Your task to perform on an android device: Open notification settings Image 0: 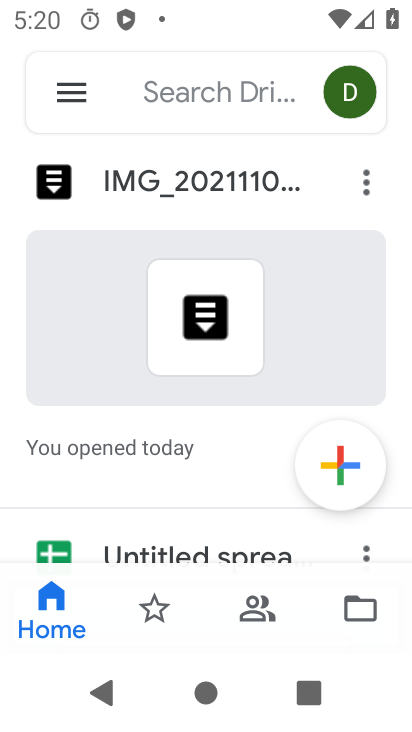
Step 0: press home button
Your task to perform on an android device: Open notification settings Image 1: 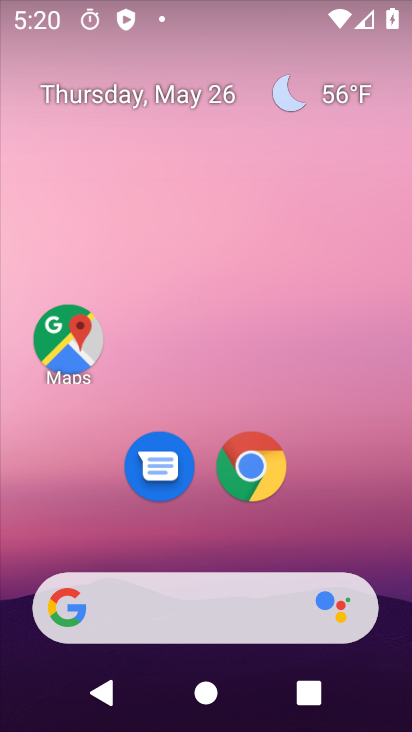
Step 1: drag from (278, 511) to (329, 67)
Your task to perform on an android device: Open notification settings Image 2: 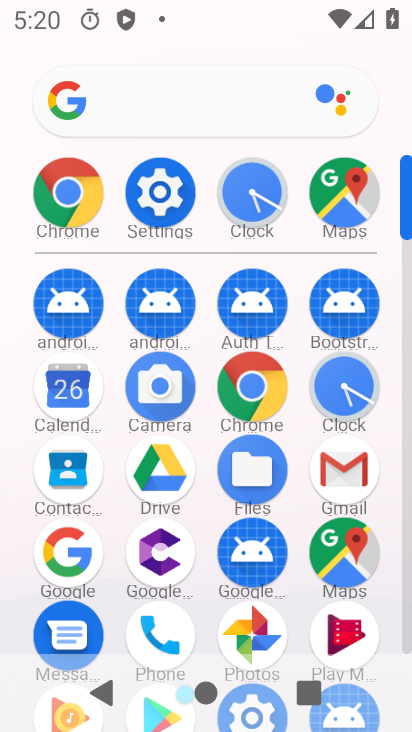
Step 2: click (159, 193)
Your task to perform on an android device: Open notification settings Image 3: 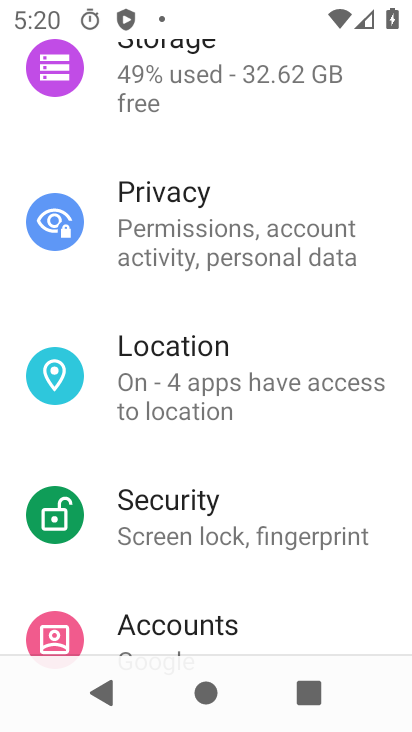
Step 3: drag from (337, 152) to (313, 532)
Your task to perform on an android device: Open notification settings Image 4: 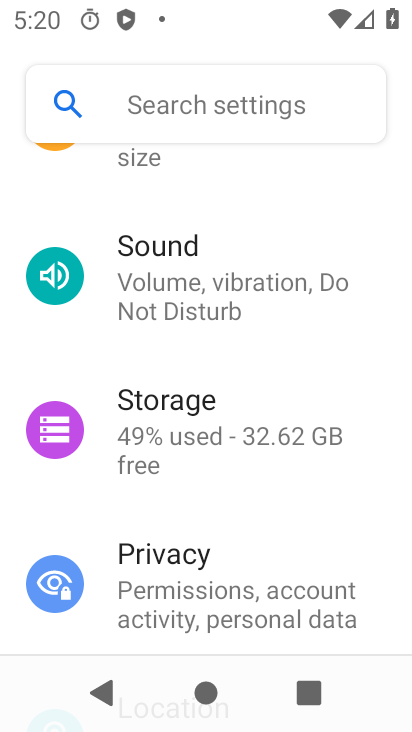
Step 4: drag from (350, 208) to (323, 546)
Your task to perform on an android device: Open notification settings Image 5: 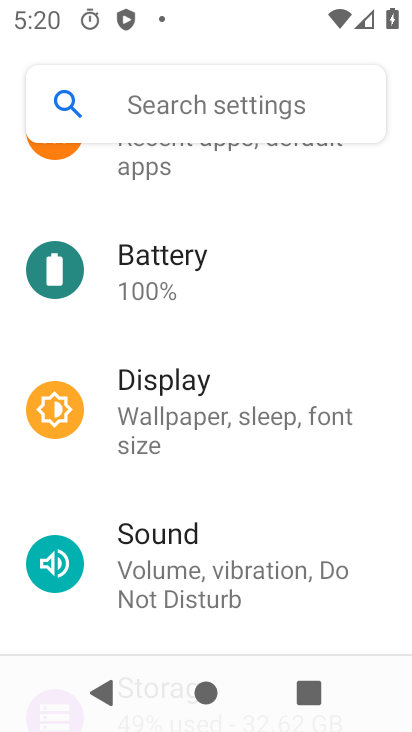
Step 5: drag from (332, 301) to (316, 529)
Your task to perform on an android device: Open notification settings Image 6: 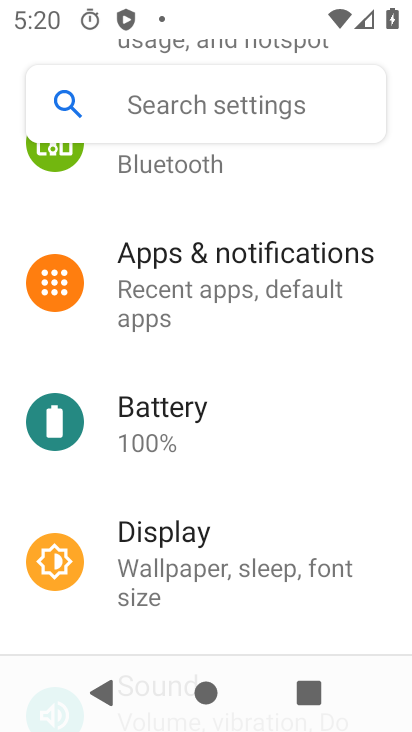
Step 6: click (252, 262)
Your task to perform on an android device: Open notification settings Image 7: 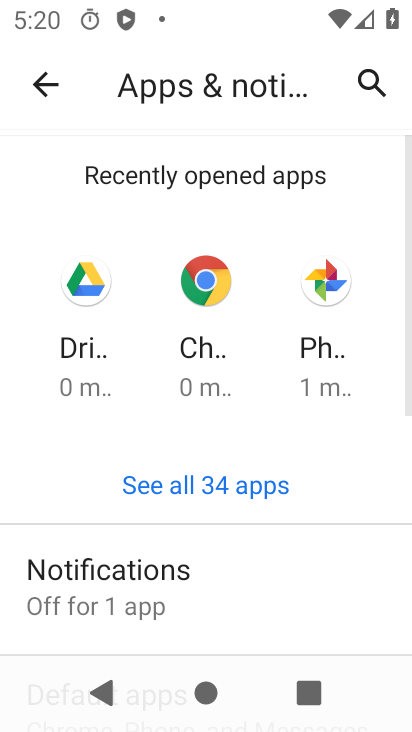
Step 7: click (120, 576)
Your task to perform on an android device: Open notification settings Image 8: 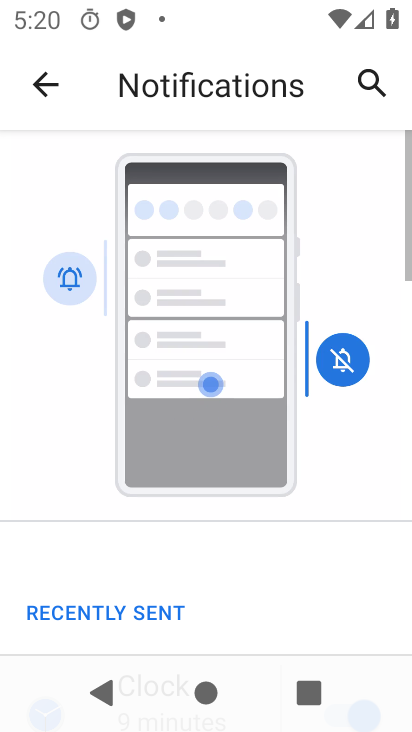
Step 8: task complete